Your task to perform on an android device: set the stopwatch Image 0: 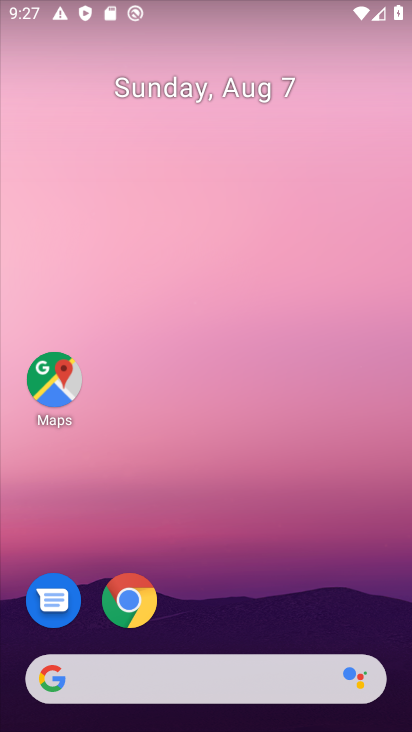
Step 0: drag from (223, 630) to (272, 149)
Your task to perform on an android device: set the stopwatch Image 1: 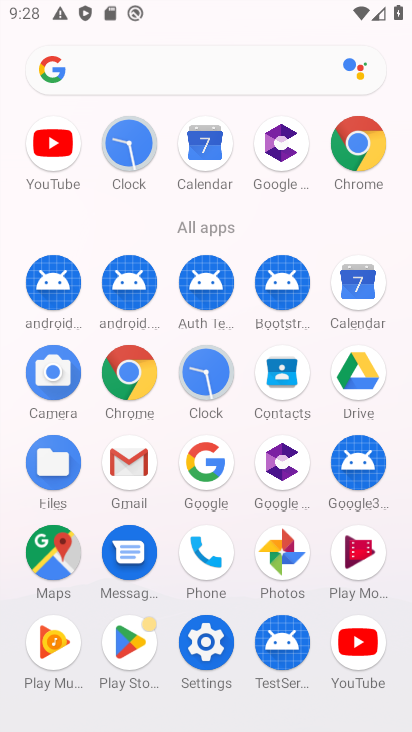
Step 1: click (206, 379)
Your task to perform on an android device: set the stopwatch Image 2: 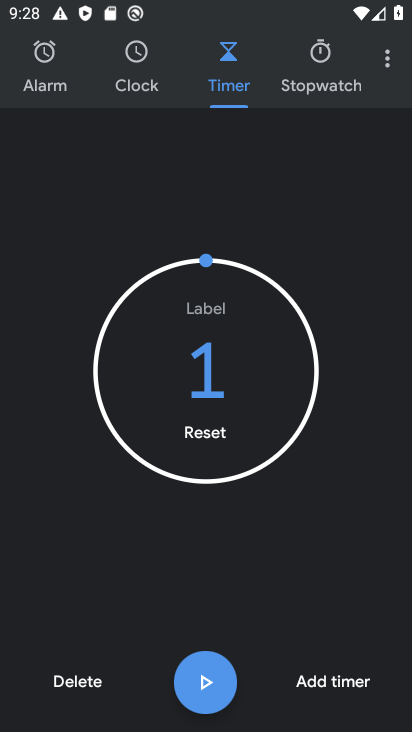
Step 2: click (310, 92)
Your task to perform on an android device: set the stopwatch Image 3: 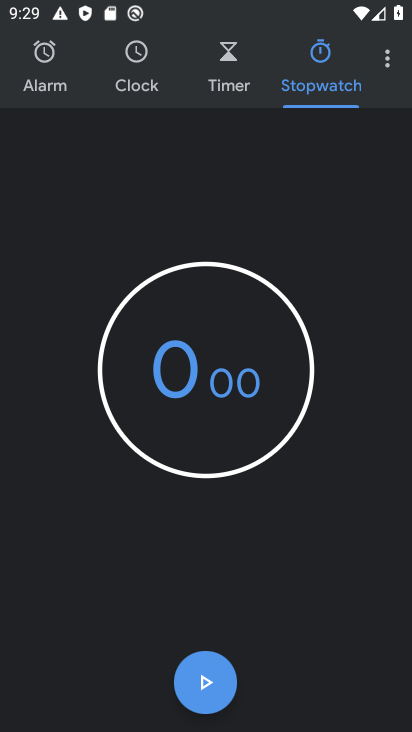
Step 3: click (195, 696)
Your task to perform on an android device: set the stopwatch Image 4: 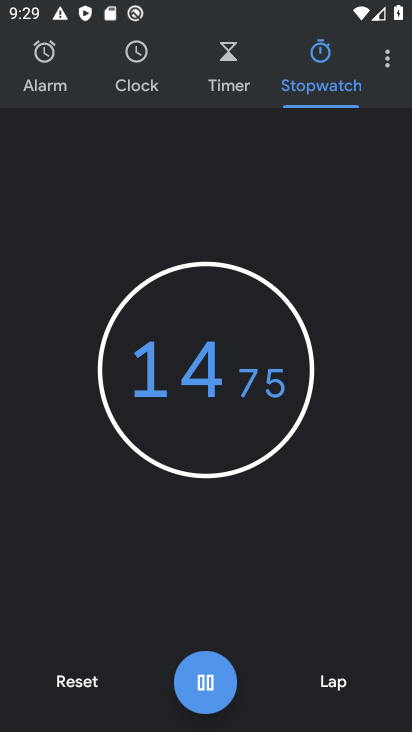
Step 4: task complete